Your task to perform on an android device: Find coffee shops on Maps Image 0: 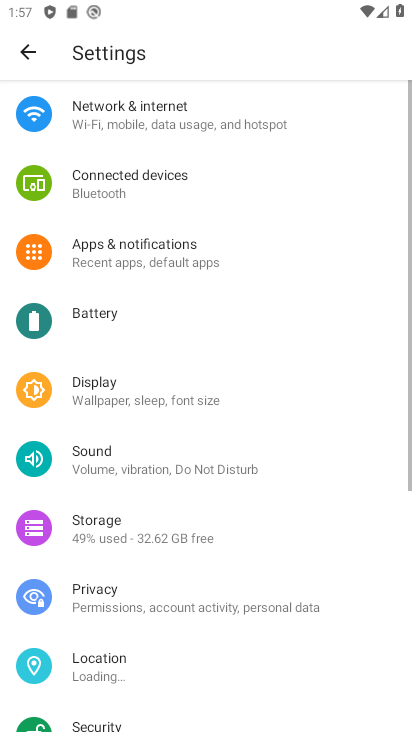
Step 0: drag from (308, 615) to (330, 176)
Your task to perform on an android device: Find coffee shops on Maps Image 1: 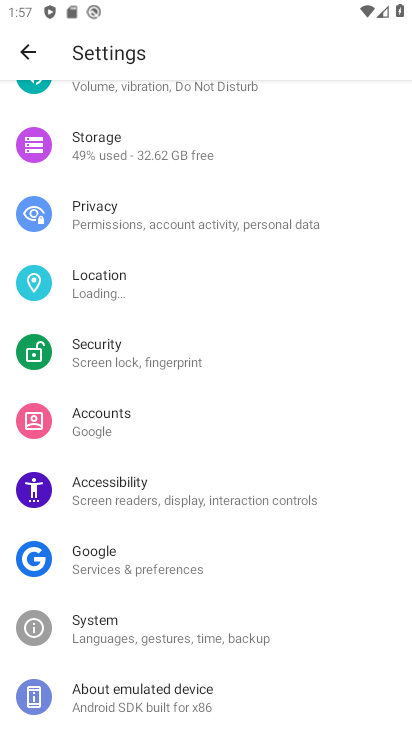
Step 1: press home button
Your task to perform on an android device: Find coffee shops on Maps Image 2: 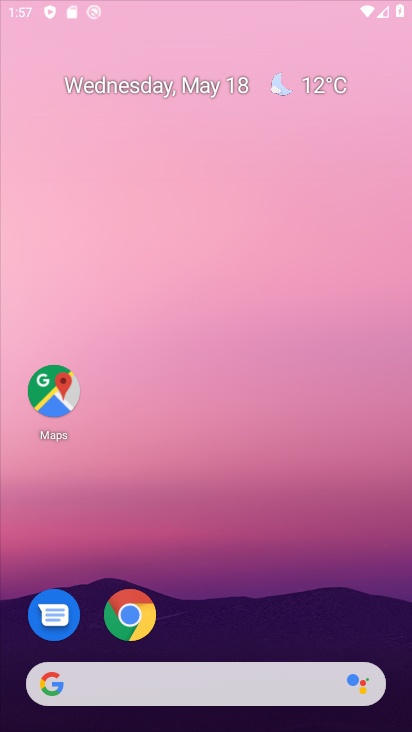
Step 2: drag from (314, 615) to (282, 134)
Your task to perform on an android device: Find coffee shops on Maps Image 3: 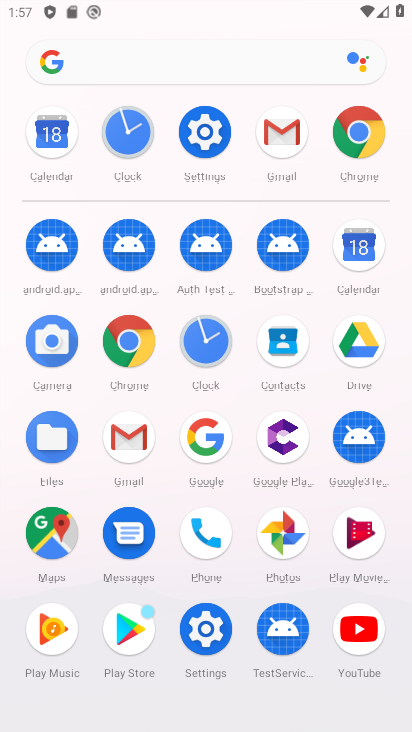
Step 3: click (55, 535)
Your task to perform on an android device: Find coffee shops on Maps Image 4: 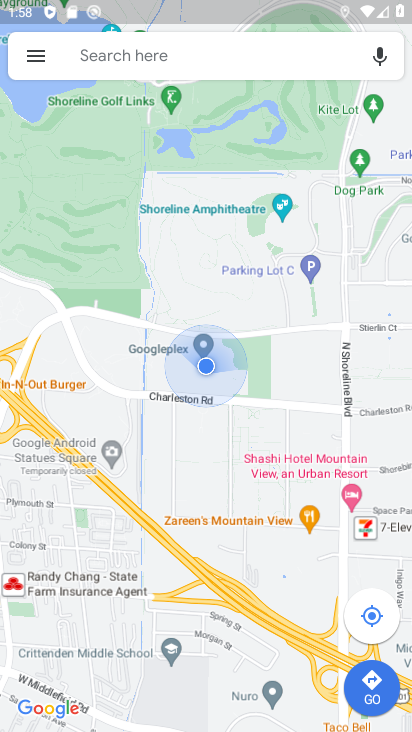
Step 4: click (185, 47)
Your task to perform on an android device: Find coffee shops on Maps Image 5: 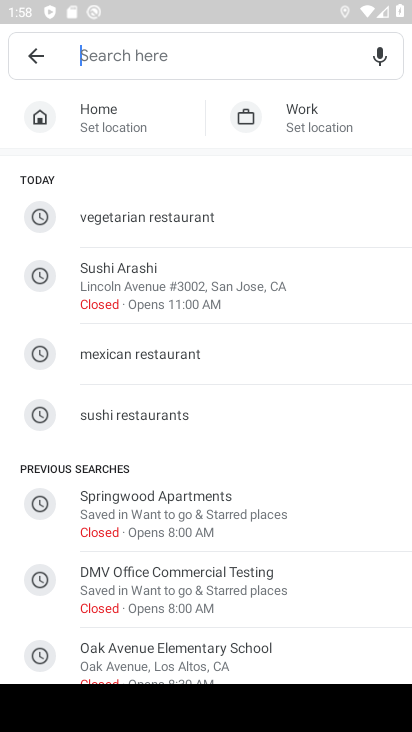
Step 5: type "coffe"
Your task to perform on an android device: Find coffee shops on Maps Image 6: 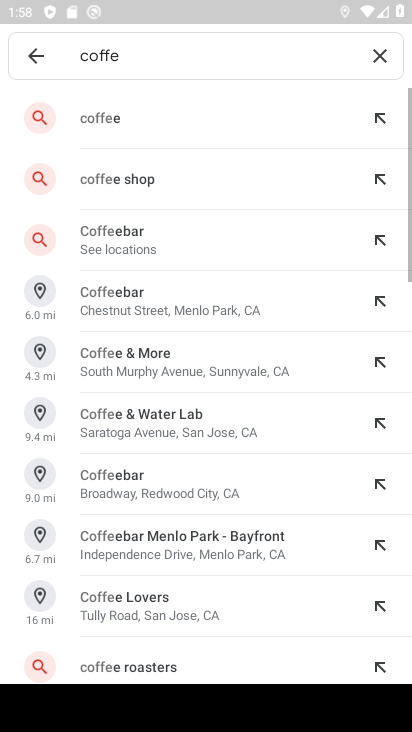
Step 6: click (166, 131)
Your task to perform on an android device: Find coffee shops on Maps Image 7: 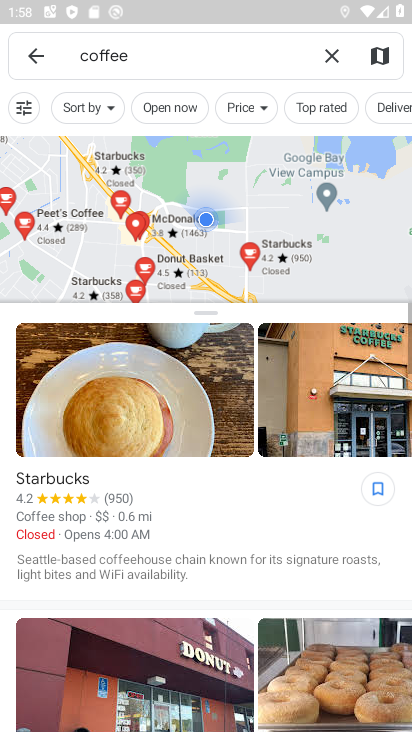
Step 7: task complete